Your task to perform on an android device: Open privacy settings Image 0: 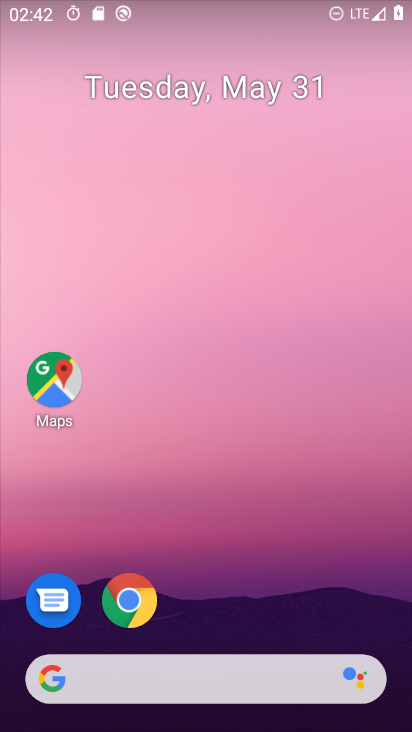
Step 0: drag from (217, 722) to (217, 134)
Your task to perform on an android device: Open privacy settings Image 1: 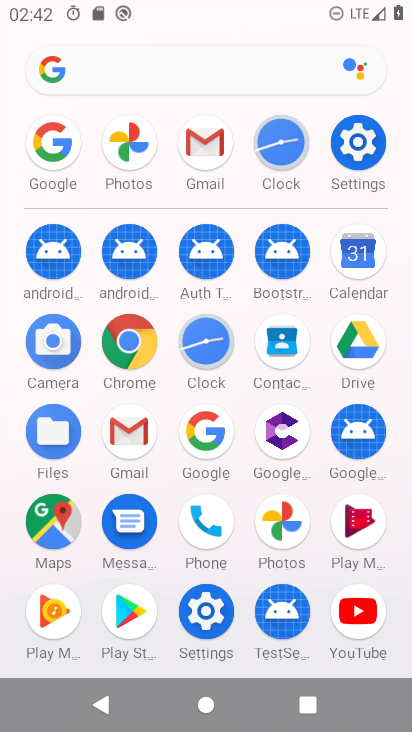
Step 1: click (360, 143)
Your task to perform on an android device: Open privacy settings Image 2: 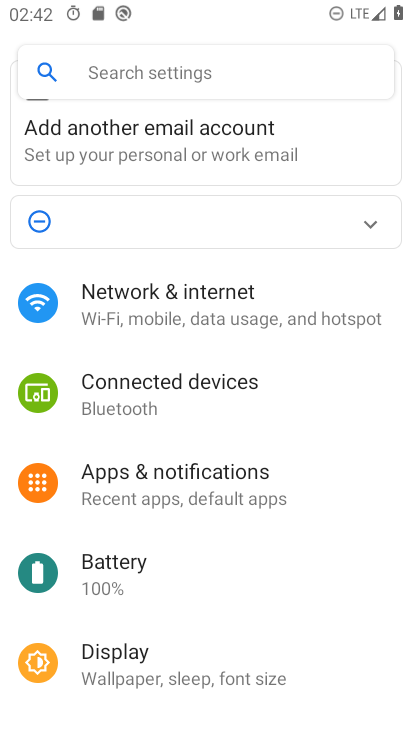
Step 2: drag from (203, 586) to (204, 352)
Your task to perform on an android device: Open privacy settings Image 3: 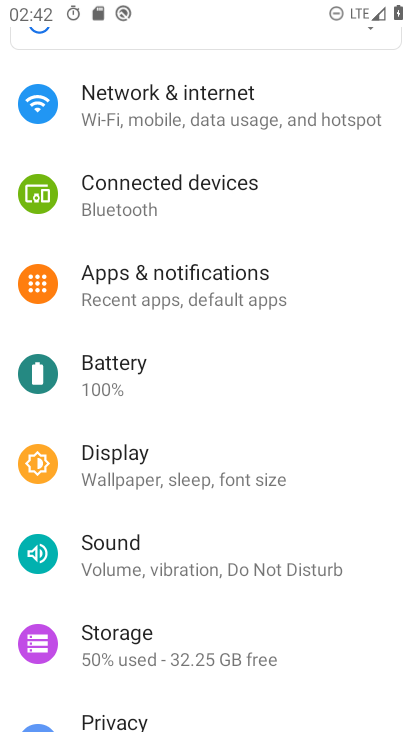
Step 3: click (107, 715)
Your task to perform on an android device: Open privacy settings Image 4: 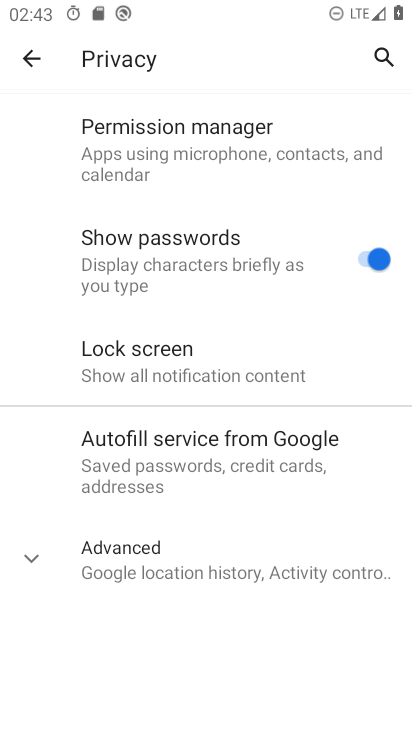
Step 4: task complete